Your task to perform on an android device: turn off notifications in google photos Image 0: 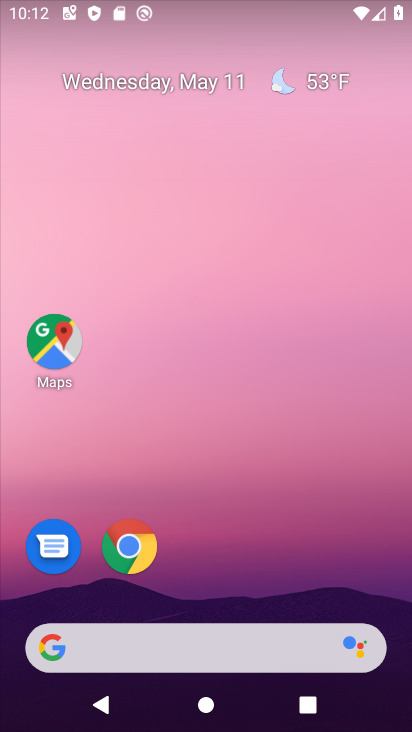
Step 0: drag from (385, 593) to (278, 85)
Your task to perform on an android device: turn off notifications in google photos Image 1: 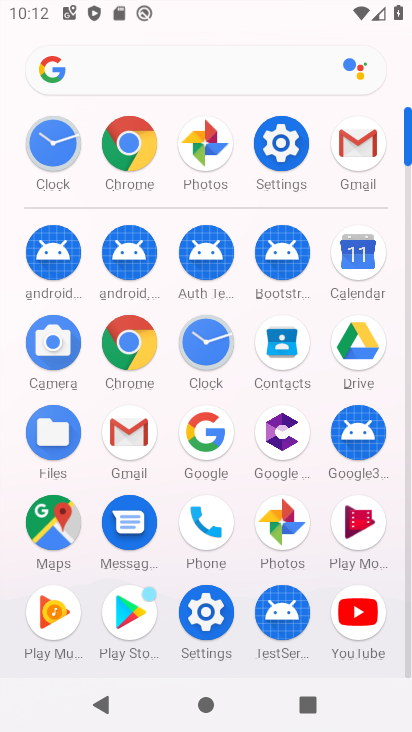
Step 1: click (272, 502)
Your task to perform on an android device: turn off notifications in google photos Image 2: 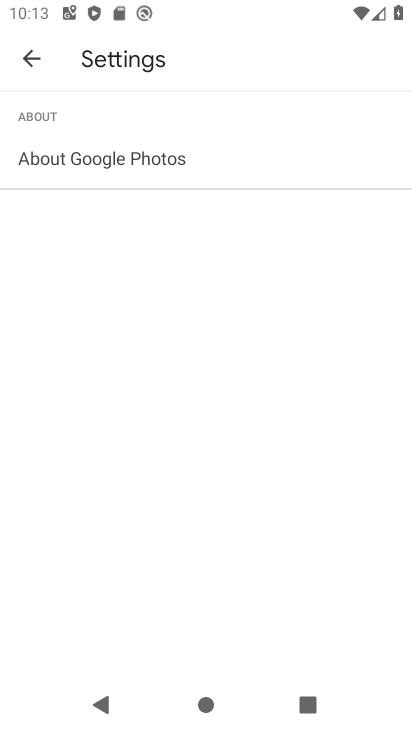
Step 2: press back button
Your task to perform on an android device: turn off notifications in google photos Image 3: 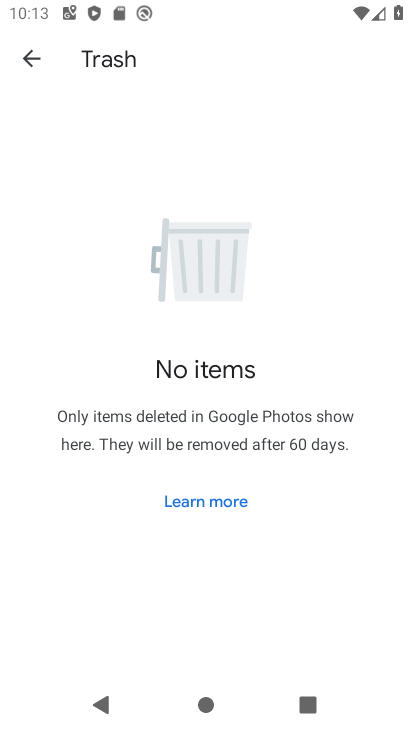
Step 3: press back button
Your task to perform on an android device: turn off notifications in google photos Image 4: 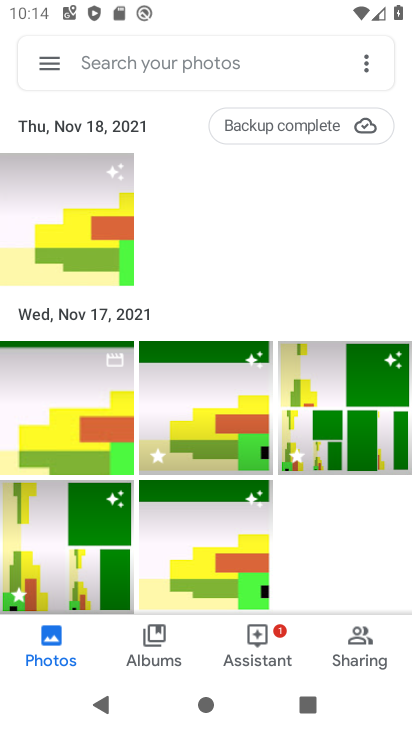
Step 4: click (37, 62)
Your task to perform on an android device: turn off notifications in google photos Image 5: 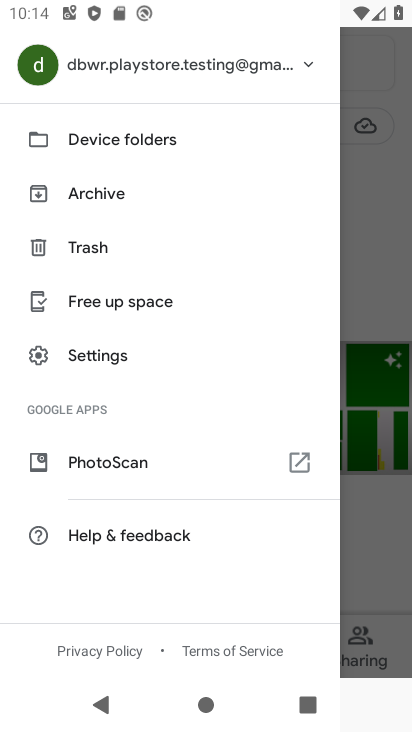
Step 5: click (112, 362)
Your task to perform on an android device: turn off notifications in google photos Image 6: 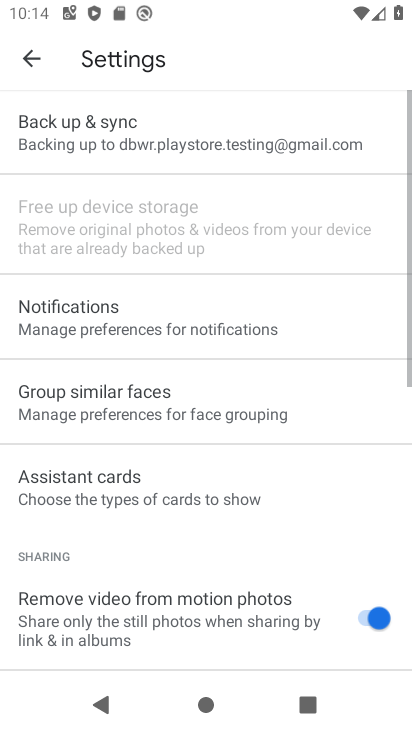
Step 6: click (156, 325)
Your task to perform on an android device: turn off notifications in google photos Image 7: 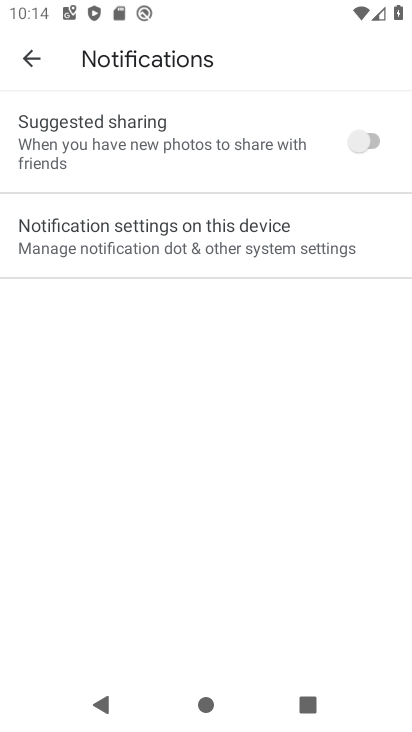
Step 7: task complete